Your task to perform on an android device: Go to Wikipedia Image 0: 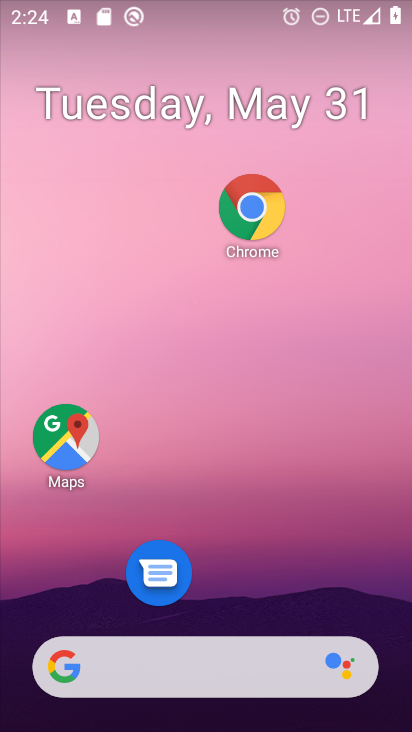
Step 0: drag from (250, 655) to (275, 96)
Your task to perform on an android device: Go to Wikipedia Image 1: 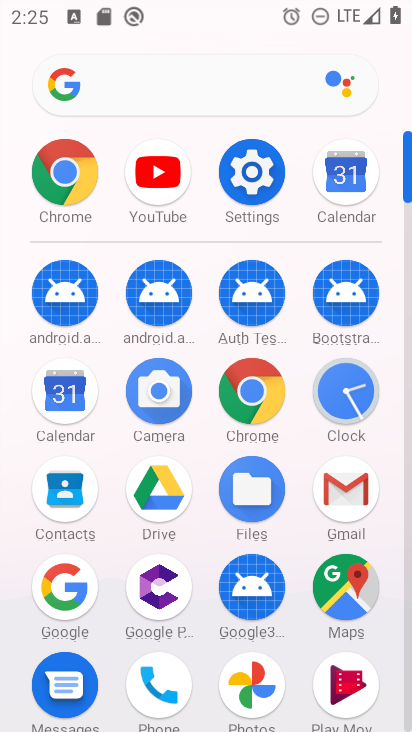
Step 1: click (59, 201)
Your task to perform on an android device: Go to Wikipedia Image 2: 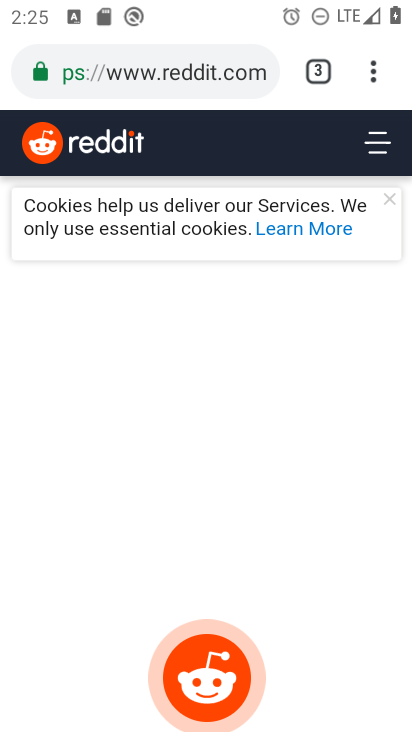
Step 2: click (233, 71)
Your task to perform on an android device: Go to Wikipedia Image 3: 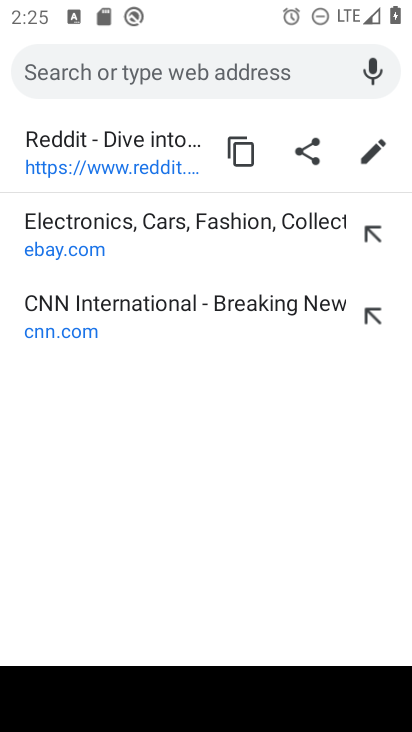
Step 3: type "wiki"
Your task to perform on an android device: Go to Wikipedia Image 4: 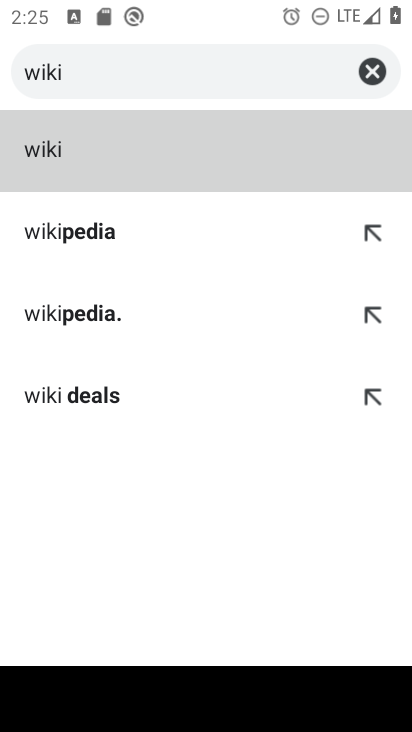
Step 4: click (158, 237)
Your task to perform on an android device: Go to Wikipedia Image 5: 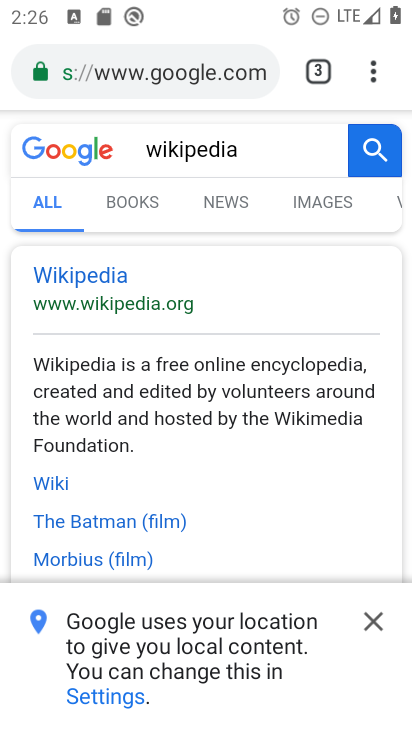
Step 5: click (108, 266)
Your task to perform on an android device: Go to Wikipedia Image 6: 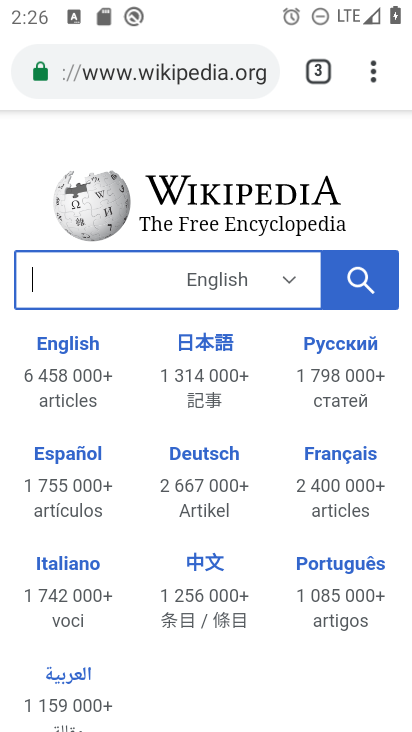
Step 6: task complete